Your task to perform on an android device: turn off wifi Image 0: 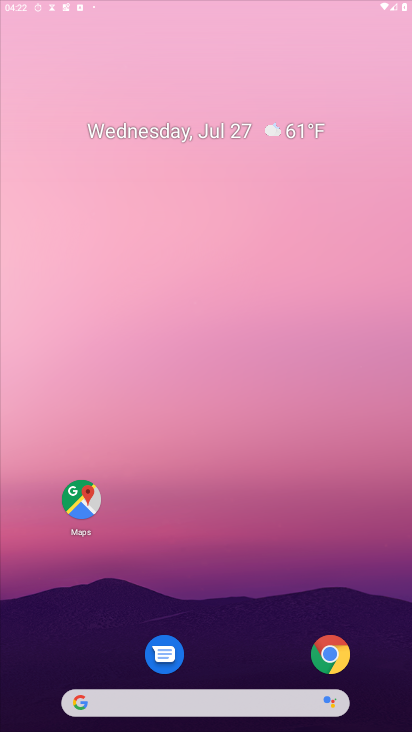
Step 0: press home button
Your task to perform on an android device: turn off wifi Image 1: 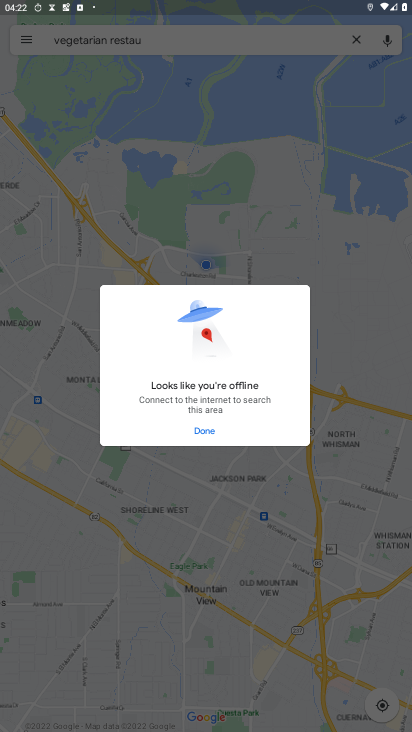
Step 1: drag from (302, 249) to (331, 31)
Your task to perform on an android device: turn off wifi Image 2: 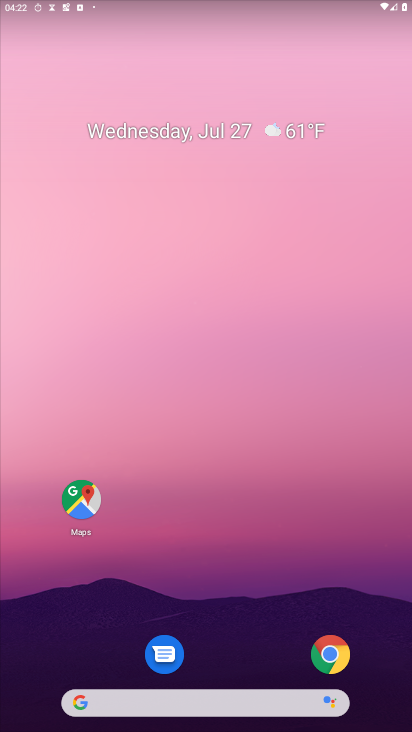
Step 2: drag from (224, 687) to (237, 1)
Your task to perform on an android device: turn off wifi Image 3: 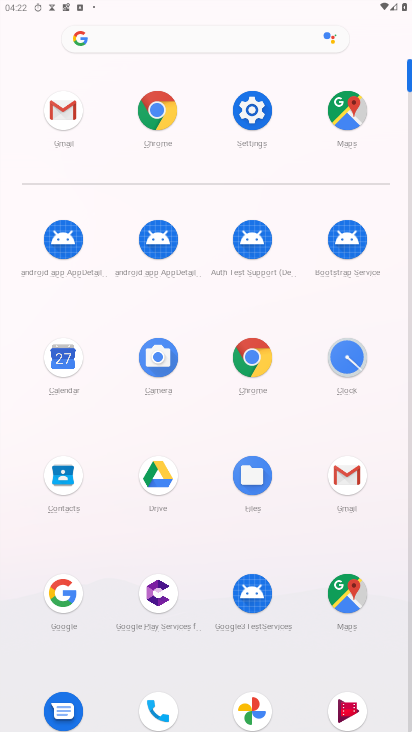
Step 3: click (250, 92)
Your task to perform on an android device: turn off wifi Image 4: 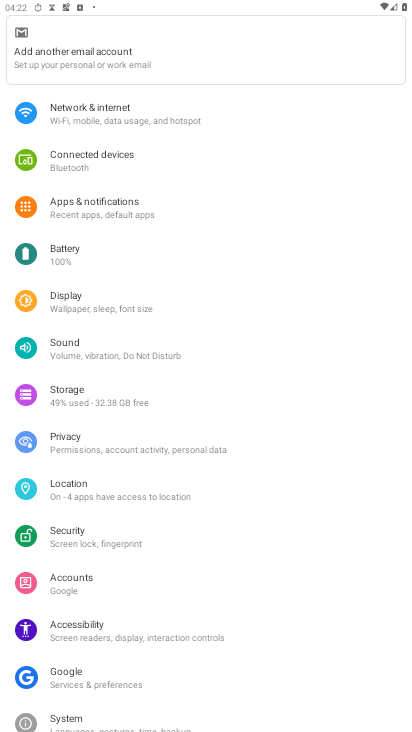
Step 4: click (135, 118)
Your task to perform on an android device: turn off wifi Image 5: 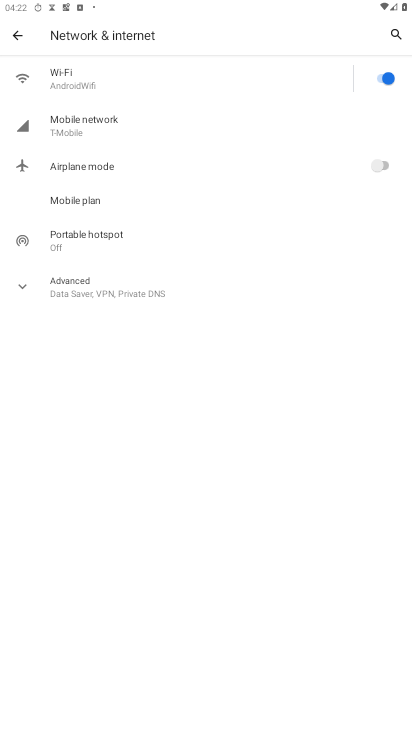
Step 5: click (386, 77)
Your task to perform on an android device: turn off wifi Image 6: 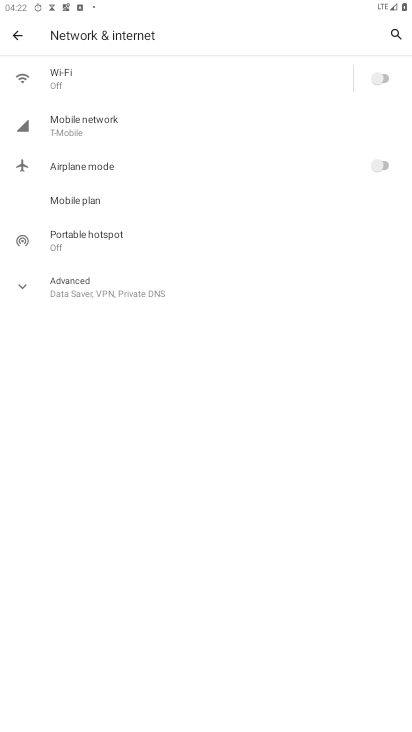
Step 6: task complete